Your task to perform on an android device: Go to CNN.com Image 0: 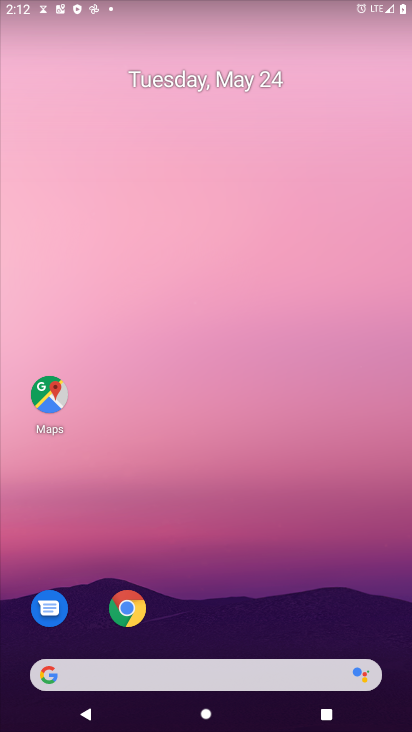
Step 0: drag from (248, 682) to (236, 186)
Your task to perform on an android device: Go to CNN.com Image 1: 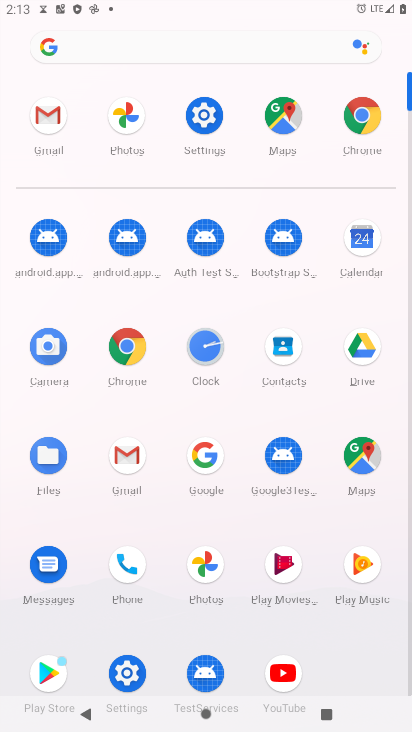
Step 1: click (358, 108)
Your task to perform on an android device: Go to CNN.com Image 2: 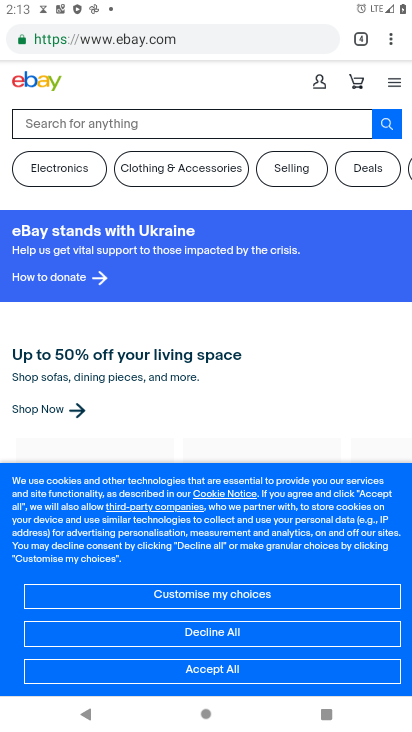
Step 2: click (384, 45)
Your task to perform on an android device: Go to CNN.com Image 3: 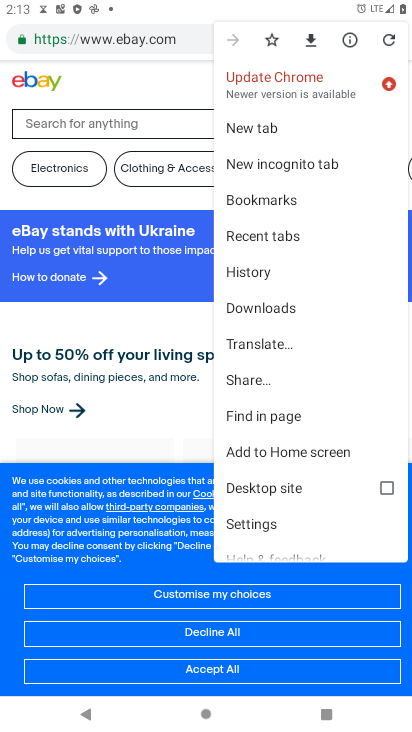
Step 3: click (142, 44)
Your task to perform on an android device: Go to CNN.com Image 4: 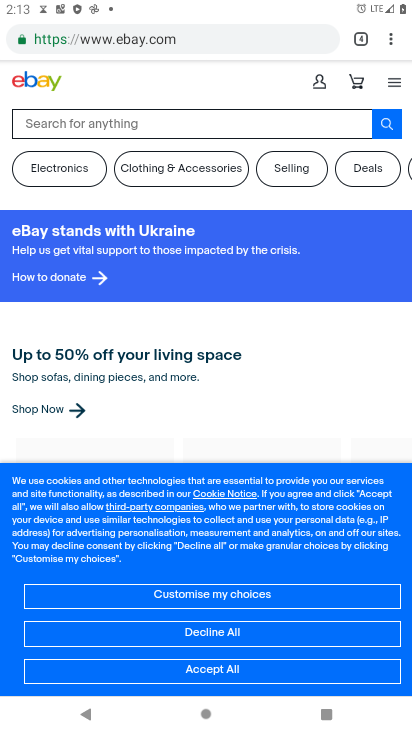
Step 4: click (142, 44)
Your task to perform on an android device: Go to CNN.com Image 5: 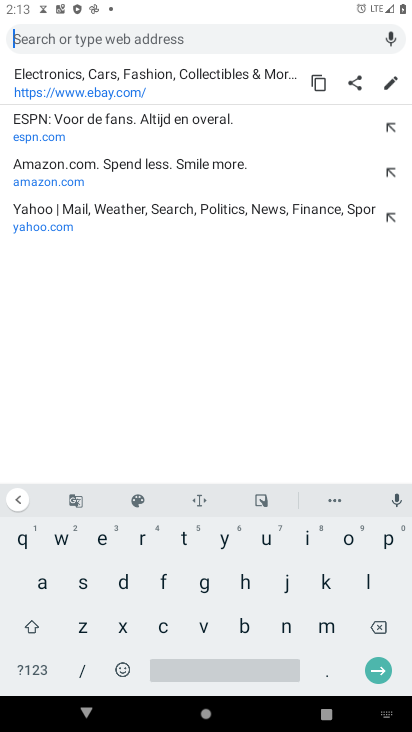
Step 5: click (155, 631)
Your task to perform on an android device: Go to CNN.com Image 6: 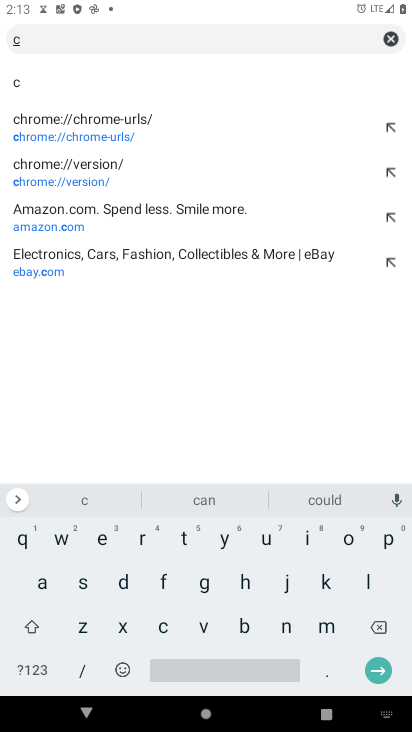
Step 6: click (296, 627)
Your task to perform on an android device: Go to CNN.com Image 7: 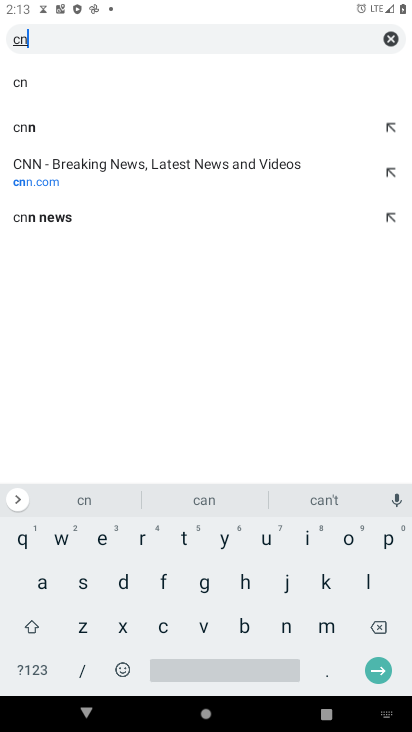
Step 7: click (296, 627)
Your task to perform on an android device: Go to CNN.com Image 8: 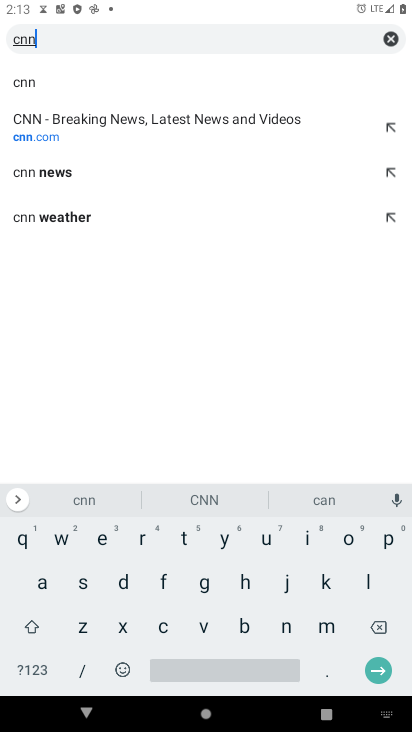
Step 8: click (329, 673)
Your task to perform on an android device: Go to CNN.com Image 9: 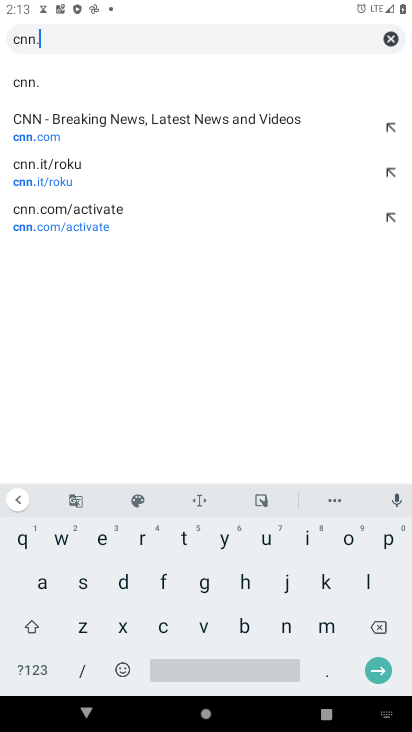
Step 9: click (162, 624)
Your task to perform on an android device: Go to CNN.com Image 10: 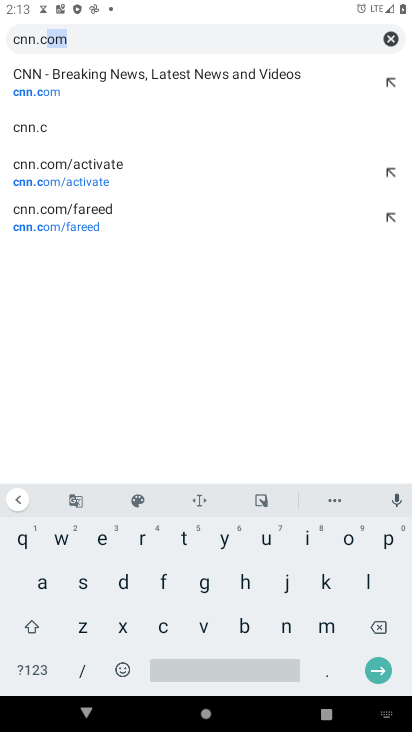
Step 10: click (84, 42)
Your task to perform on an android device: Go to CNN.com Image 11: 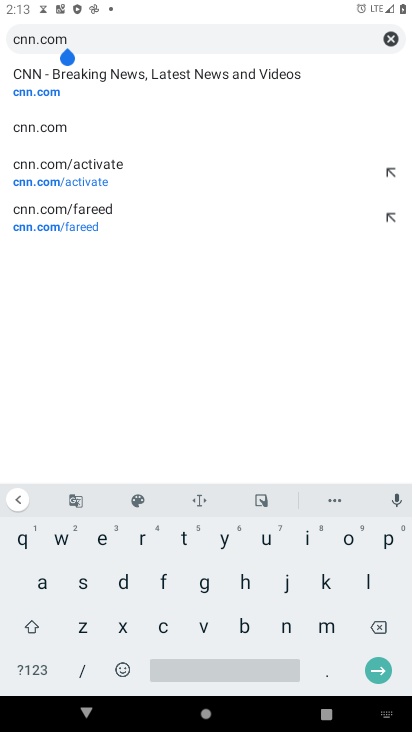
Step 11: click (386, 671)
Your task to perform on an android device: Go to CNN.com Image 12: 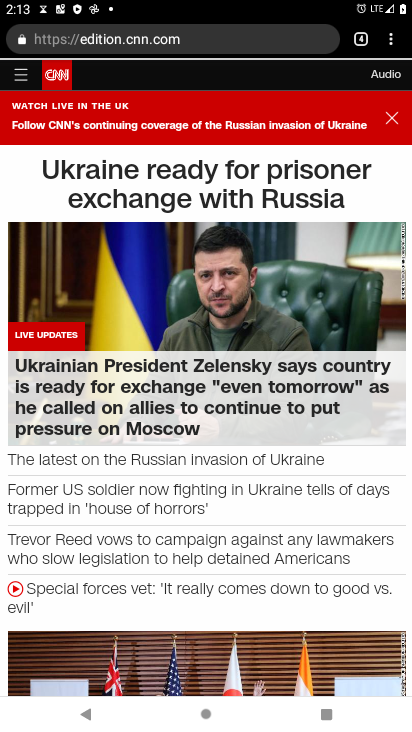
Step 12: task complete